Your task to perform on an android device: Search for vegetarian restaurants on Maps Image 0: 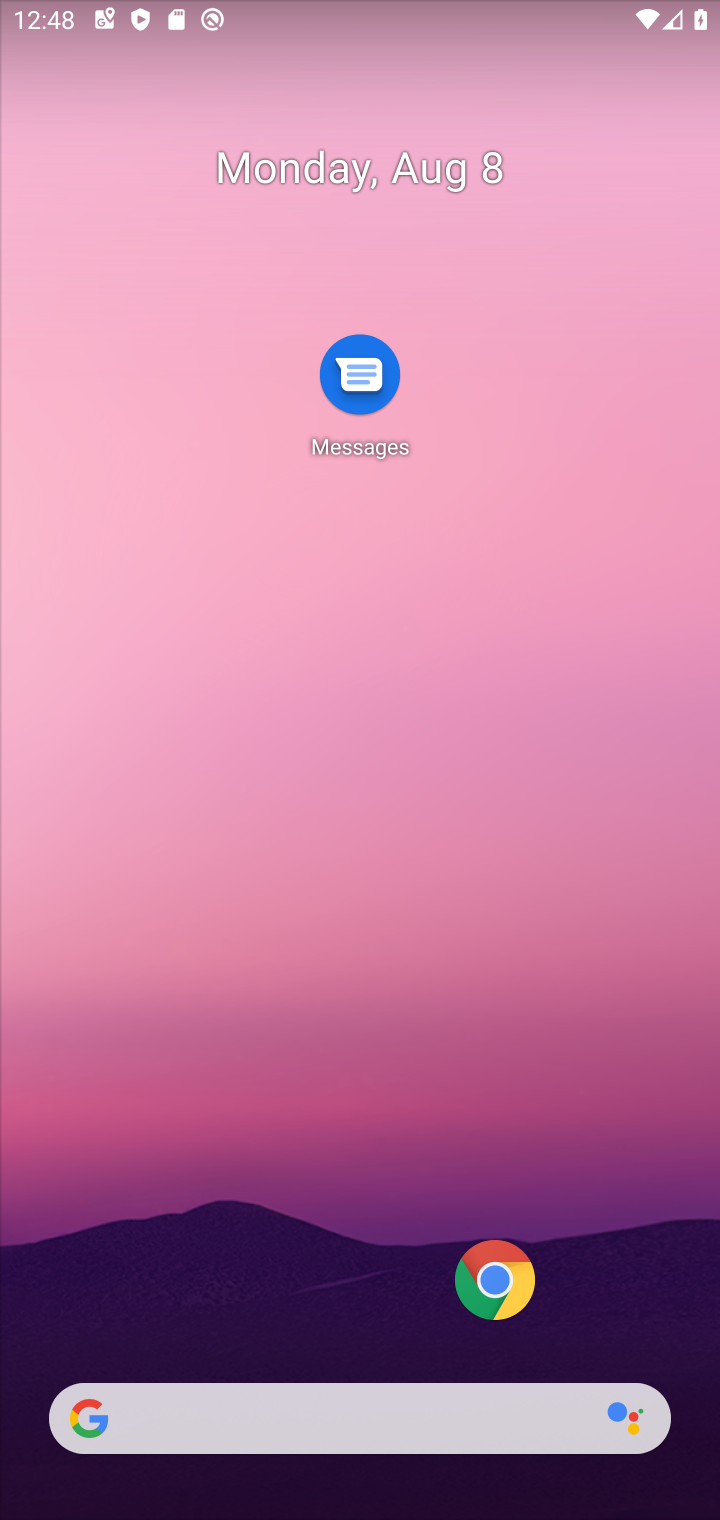
Step 0: drag from (270, 1273) to (532, 72)
Your task to perform on an android device: Search for vegetarian restaurants on Maps Image 1: 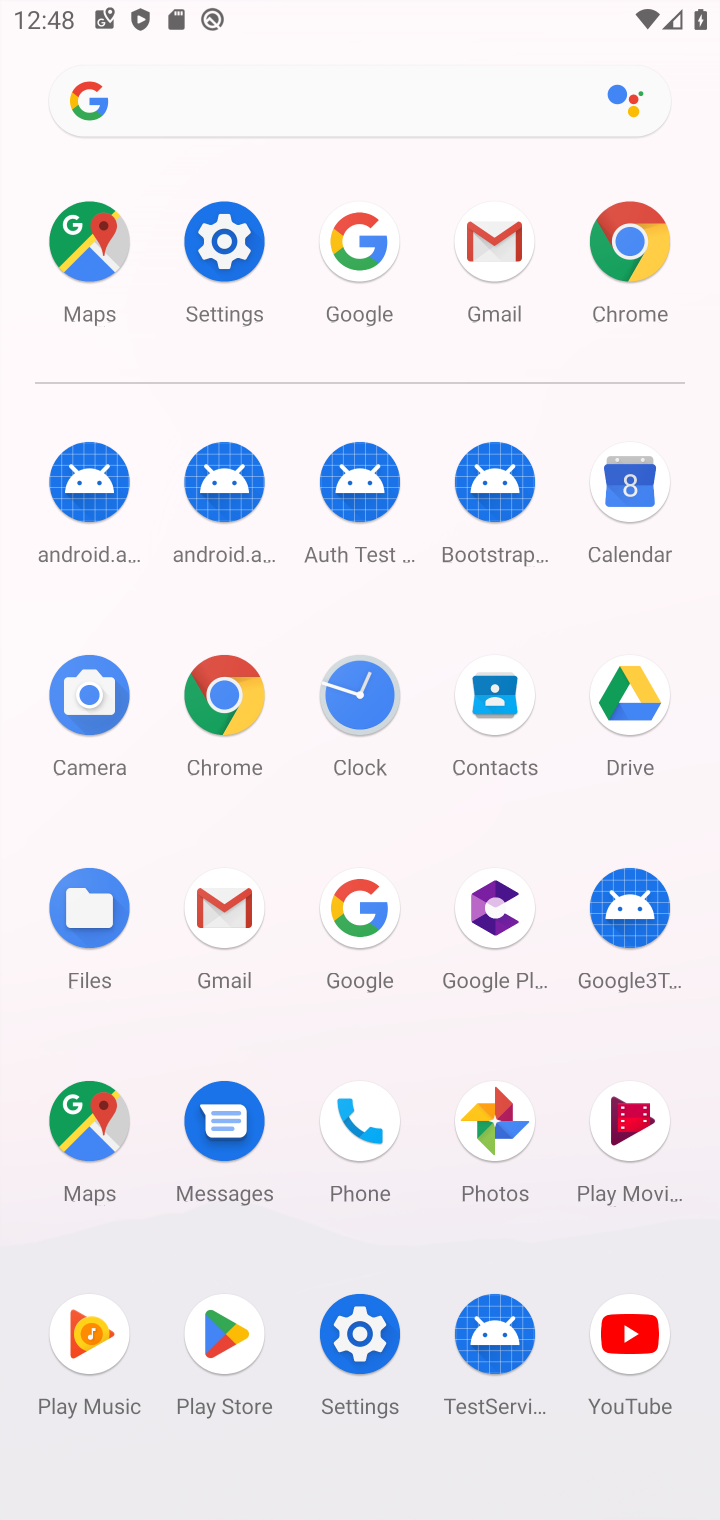
Step 1: click (105, 241)
Your task to perform on an android device: Search for vegetarian restaurants on Maps Image 2: 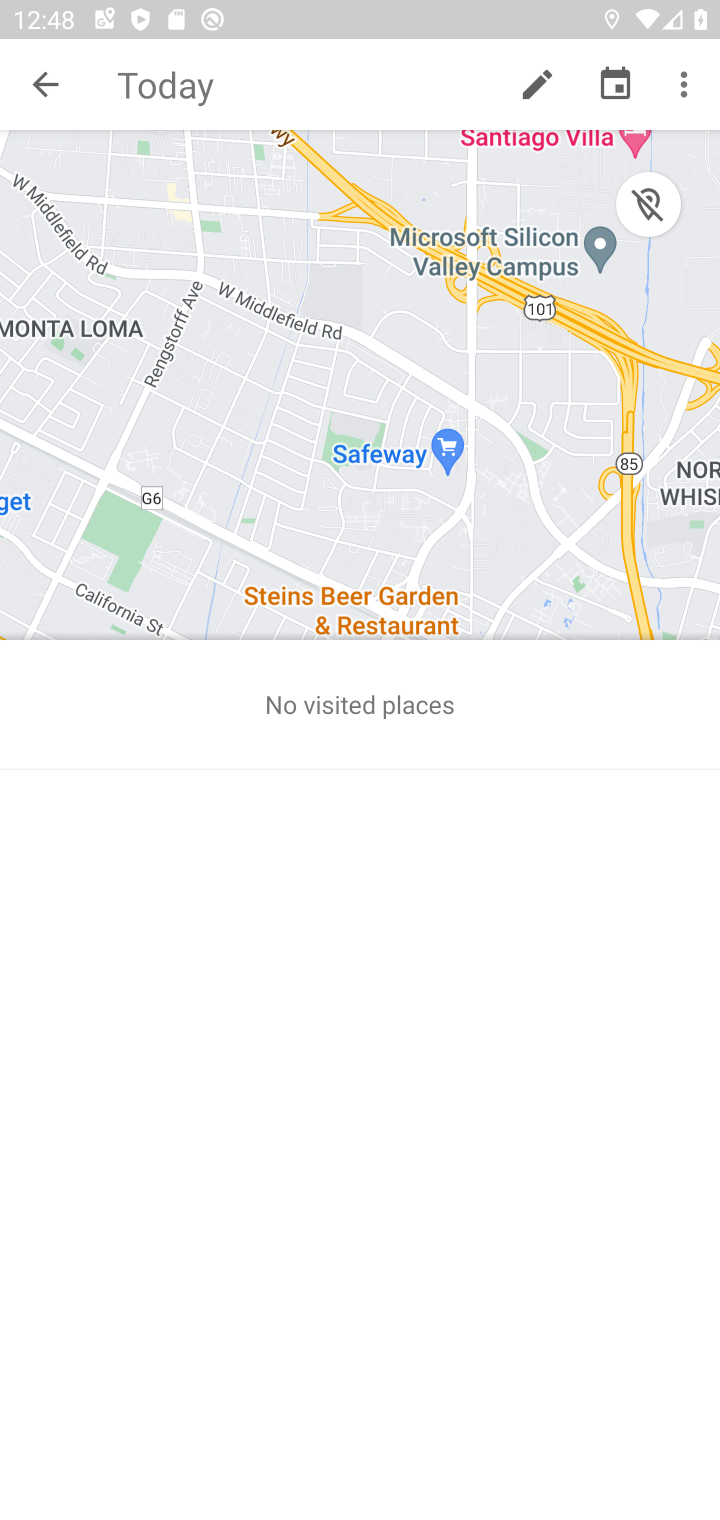
Step 2: click (45, 75)
Your task to perform on an android device: Search for vegetarian restaurants on Maps Image 3: 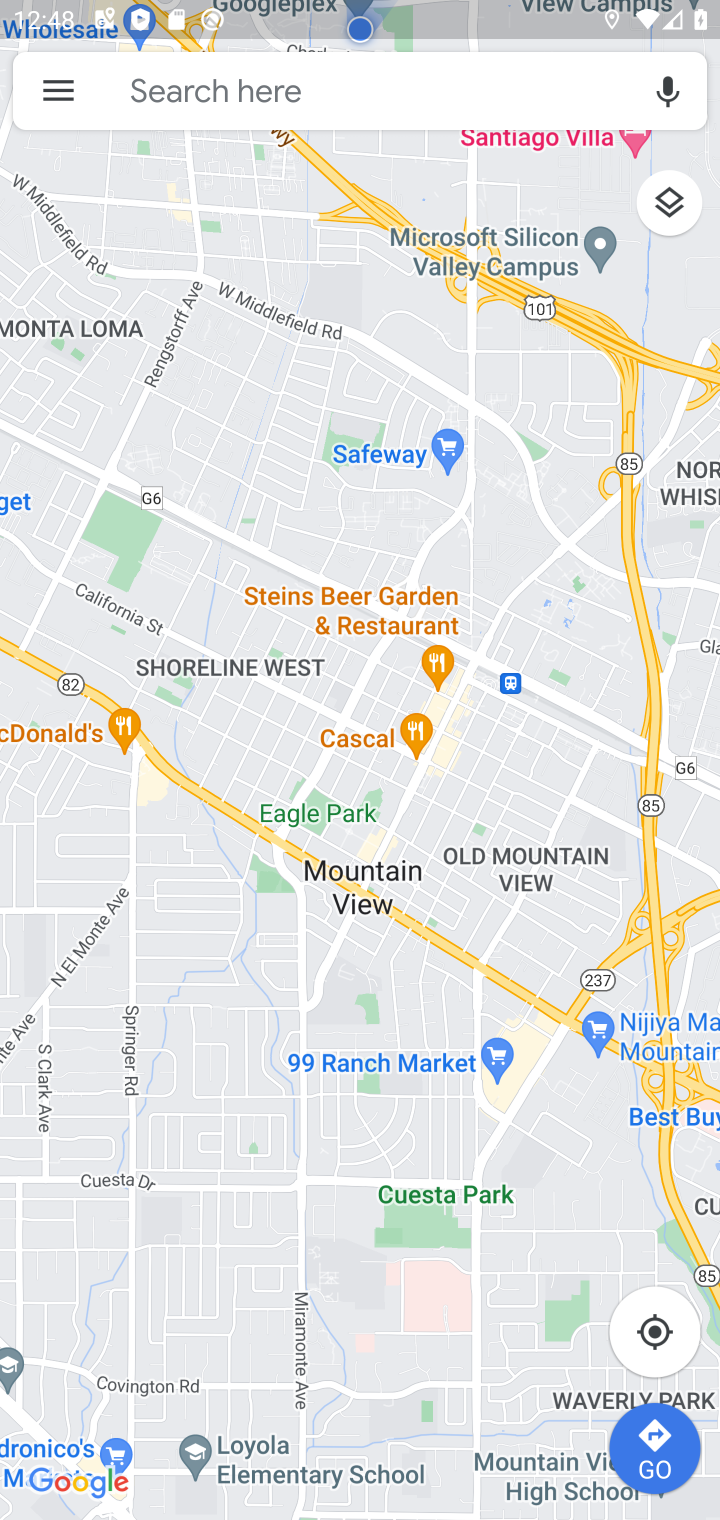
Step 3: click (304, 83)
Your task to perform on an android device: Search for vegetarian restaurants on Maps Image 4: 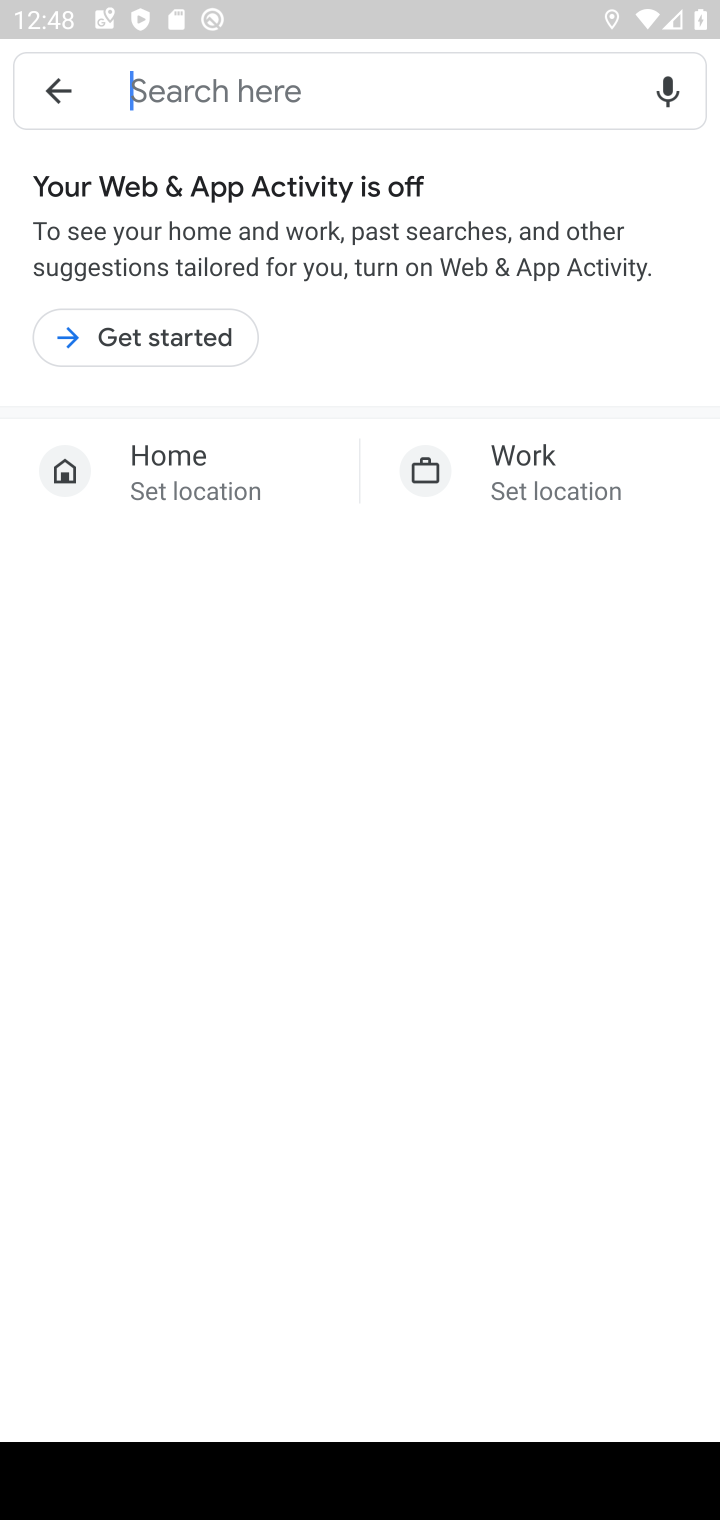
Step 4: type "vegetarian restaurants"
Your task to perform on an android device: Search for vegetarian restaurants on Maps Image 5: 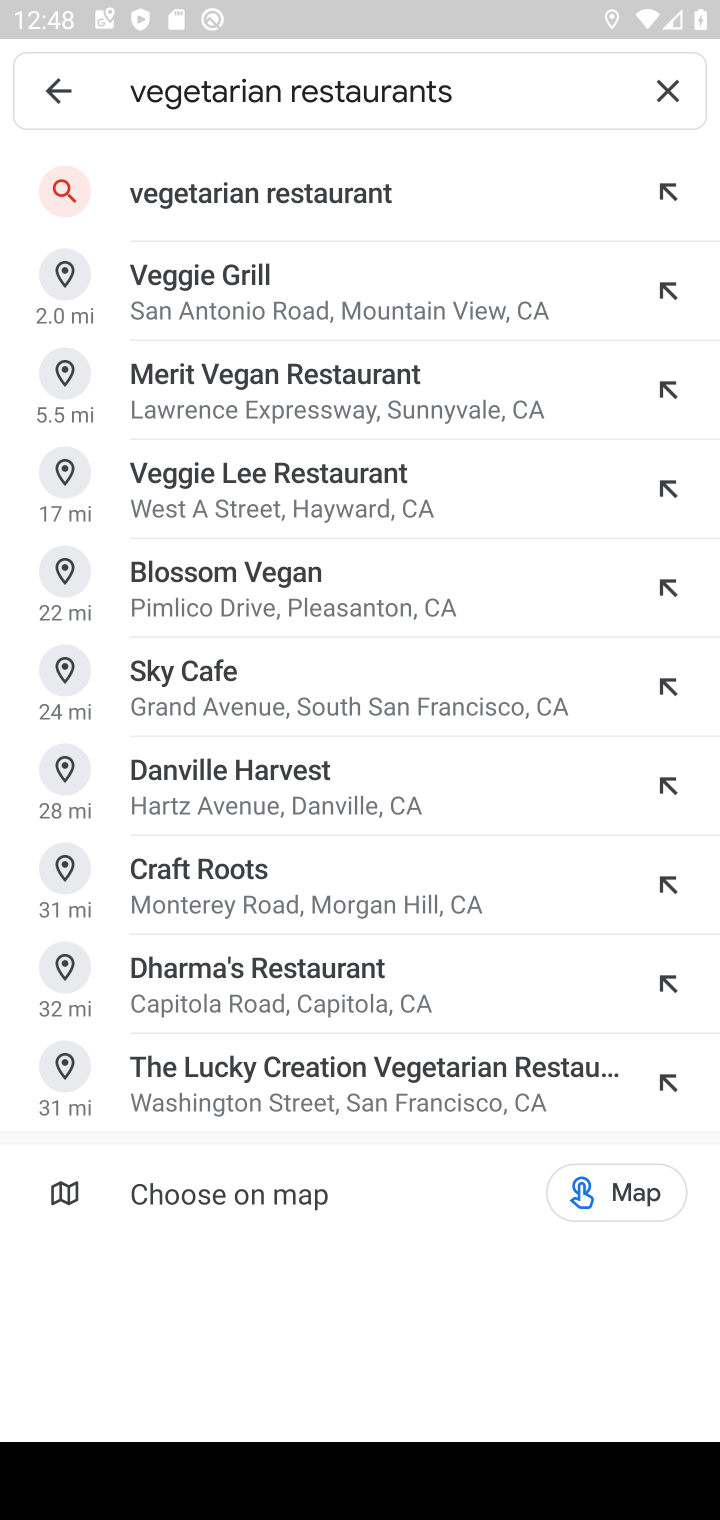
Step 5: click (299, 168)
Your task to perform on an android device: Search for vegetarian restaurants on Maps Image 6: 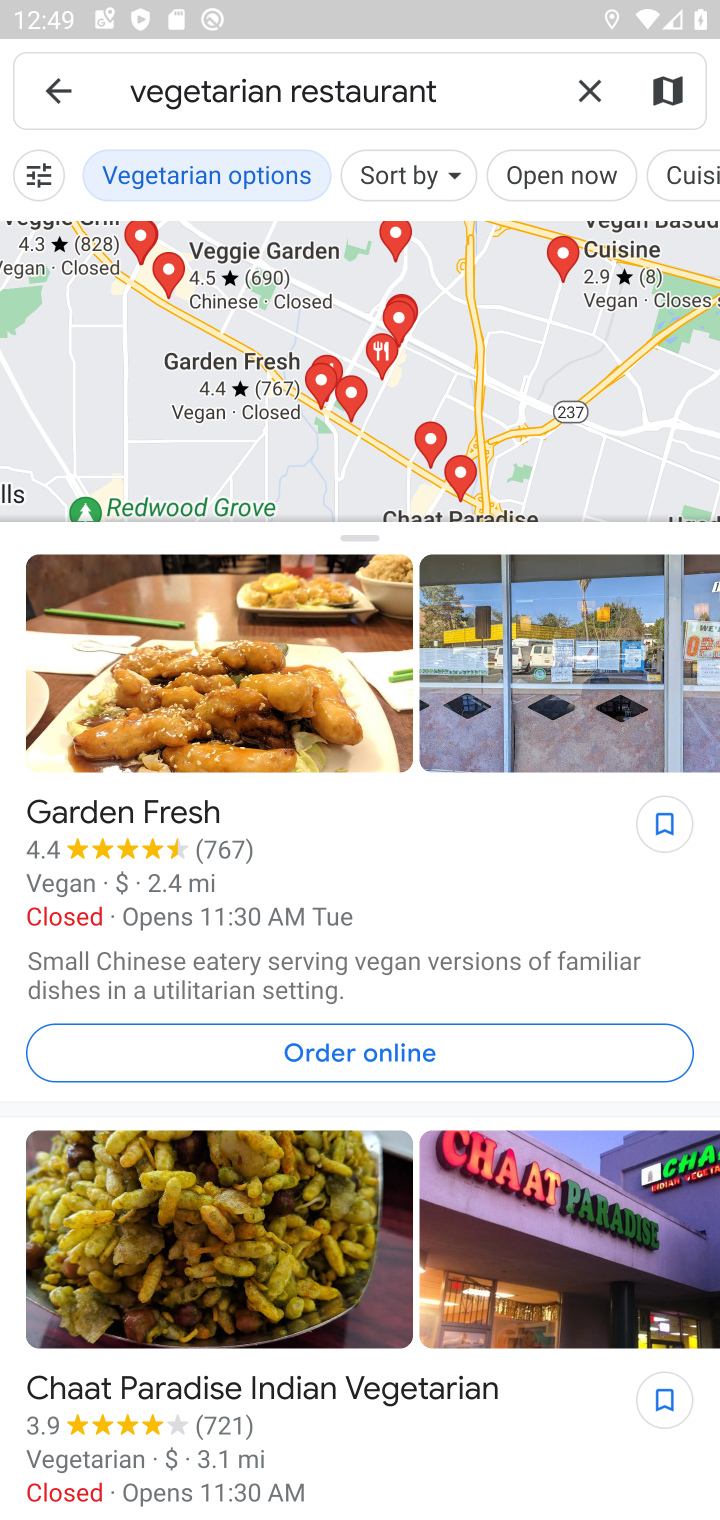
Step 6: task complete